Your task to perform on an android device: open chrome privacy settings Image 0: 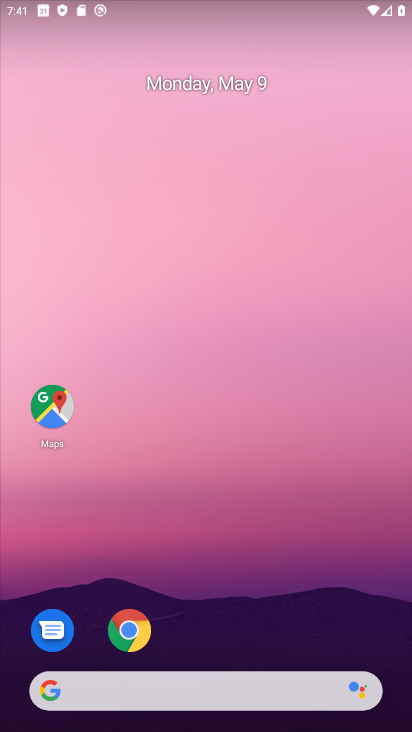
Step 0: drag from (289, 596) to (206, 81)
Your task to perform on an android device: open chrome privacy settings Image 1: 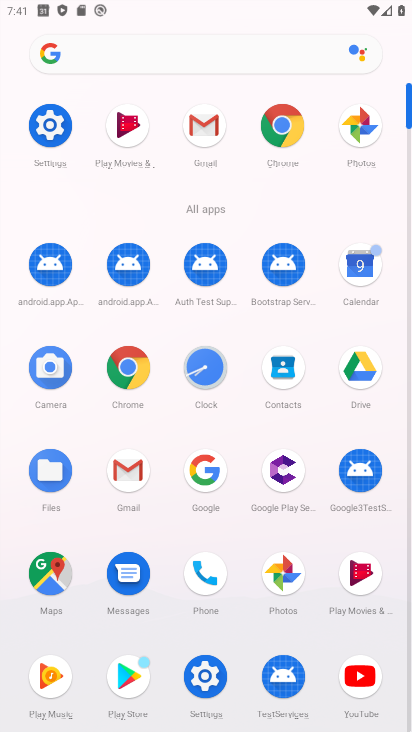
Step 1: click (274, 130)
Your task to perform on an android device: open chrome privacy settings Image 2: 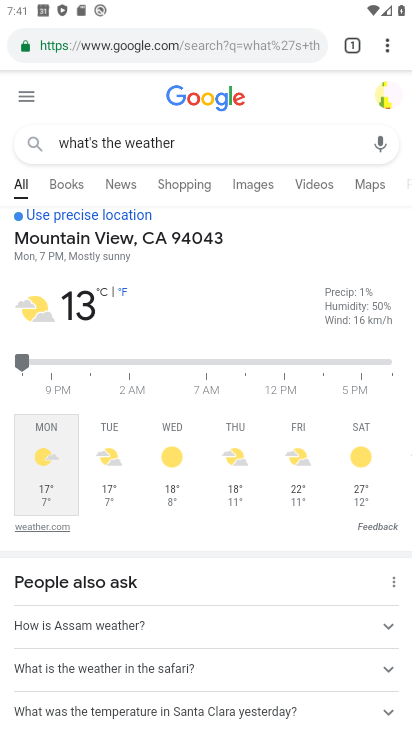
Step 2: drag from (390, 50) to (256, 554)
Your task to perform on an android device: open chrome privacy settings Image 3: 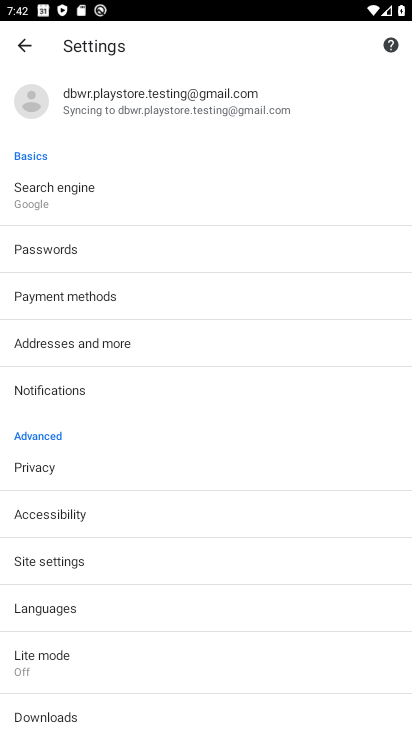
Step 3: click (85, 463)
Your task to perform on an android device: open chrome privacy settings Image 4: 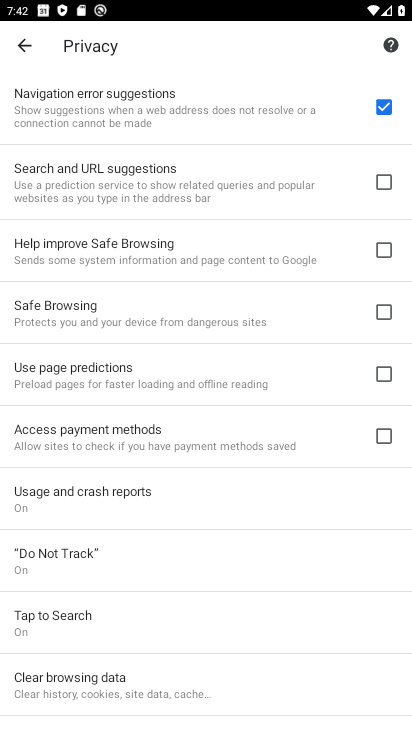
Step 4: task complete